Your task to perform on an android device: uninstall "ColorNote Notepad Notes" Image 0: 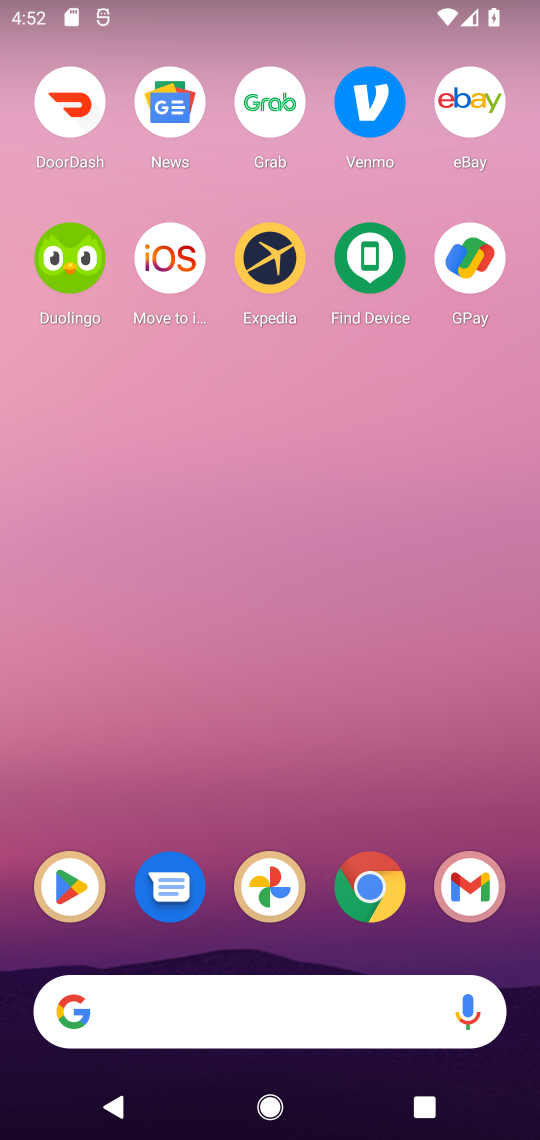
Step 0: click (86, 900)
Your task to perform on an android device: uninstall "ColorNote Notepad Notes" Image 1: 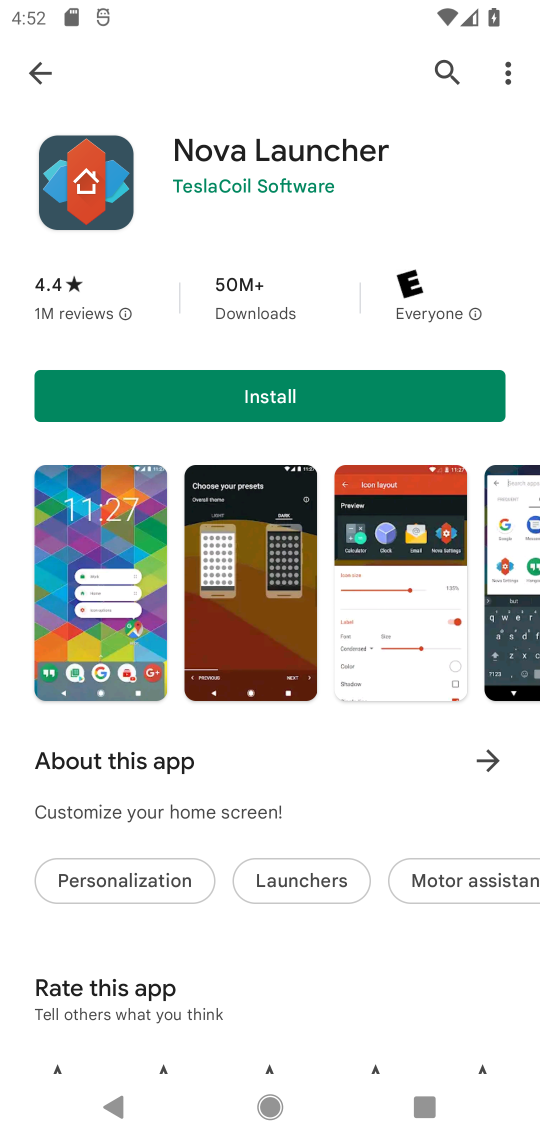
Step 1: click (39, 80)
Your task to perform on an android device: uninstall "ColorNote Notepad Notes" Image 2: 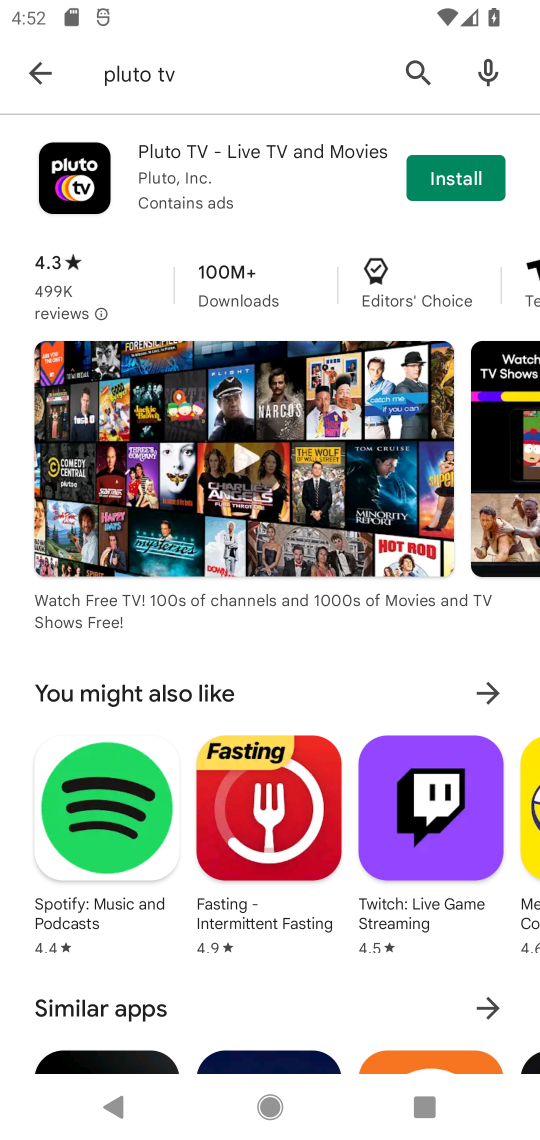
Step 2: click (40, 67)
Your task to perform on an android device: uninstall "ColorNote Notepad Notes" Image 3: 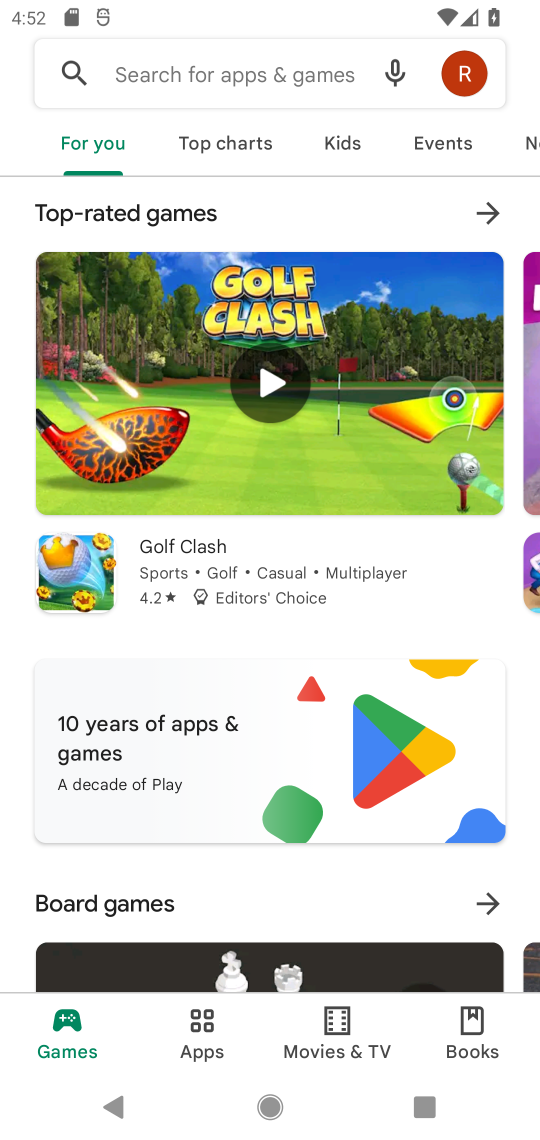
Step 3: click (307, 81)
Your task to perform on an android device: uninstall "ColorNote Notepad Notes" Image 4: 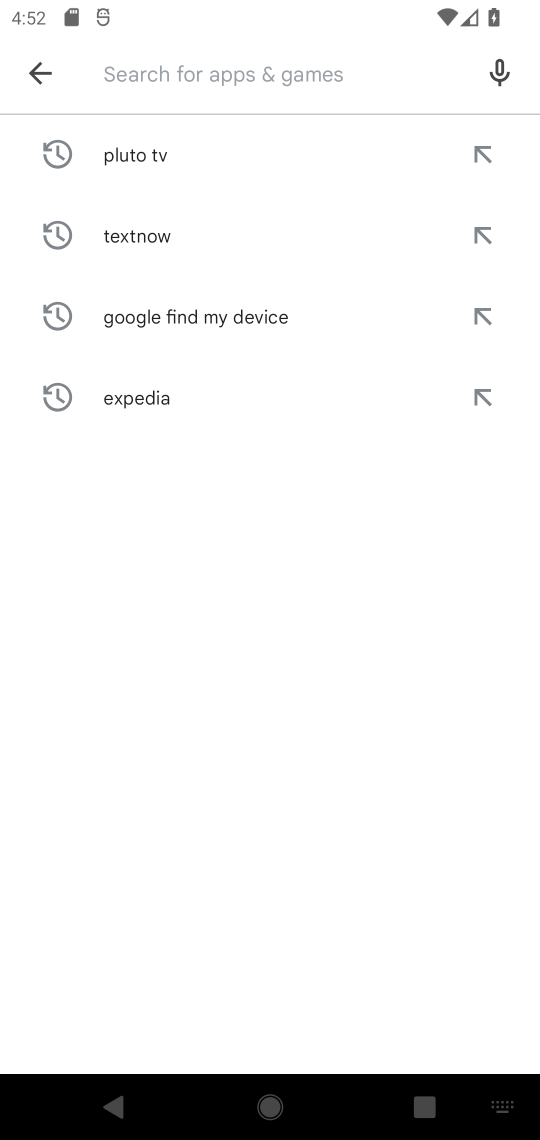
Step 4: type "ColorNote"
Your task to perform on an android device: uninstall "ColorNote Notepad Notes" Image 5: 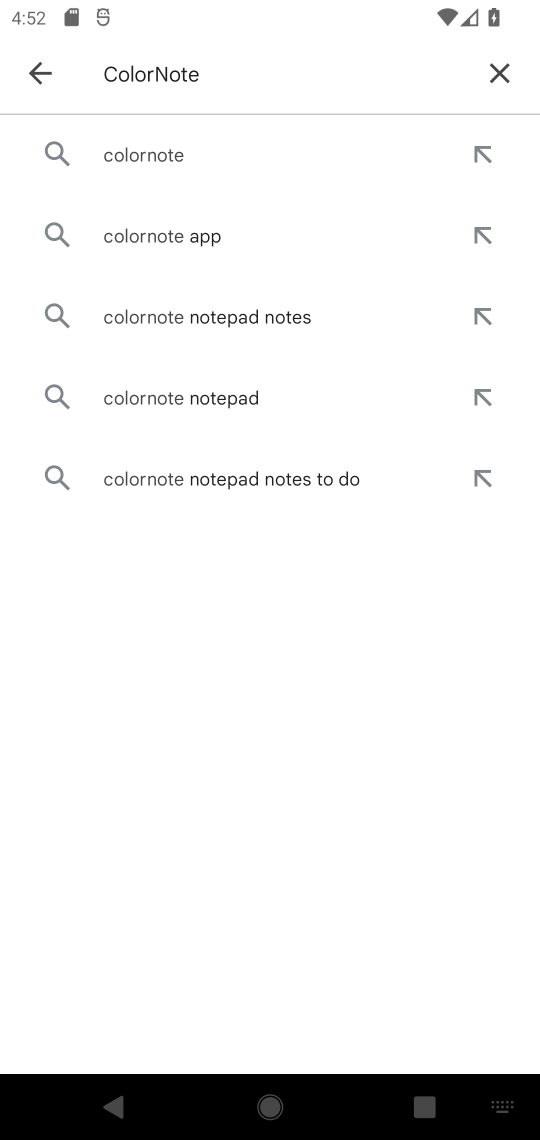
Step 5: click (214, 146)
Your task to perform on an android device: uninstall "ColorNote Notepad Notes" Image 6: 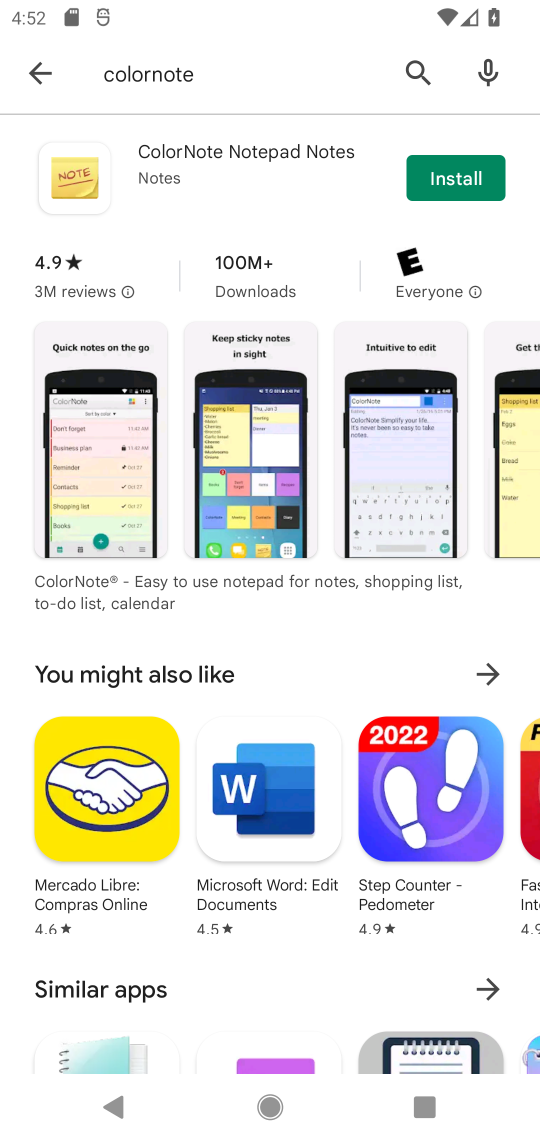
Step 6: task complete